Your task to perform on an android device: Set an alarm for 8am Image 0: 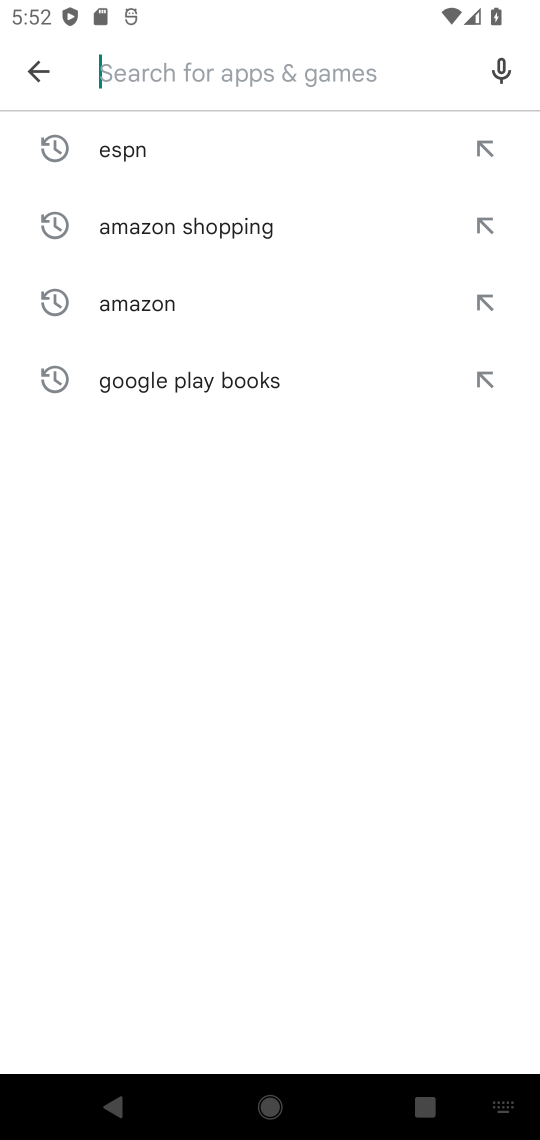
Step 0: press home button
Your task to perform on an android device: Set an alarm for 8am Image 1: 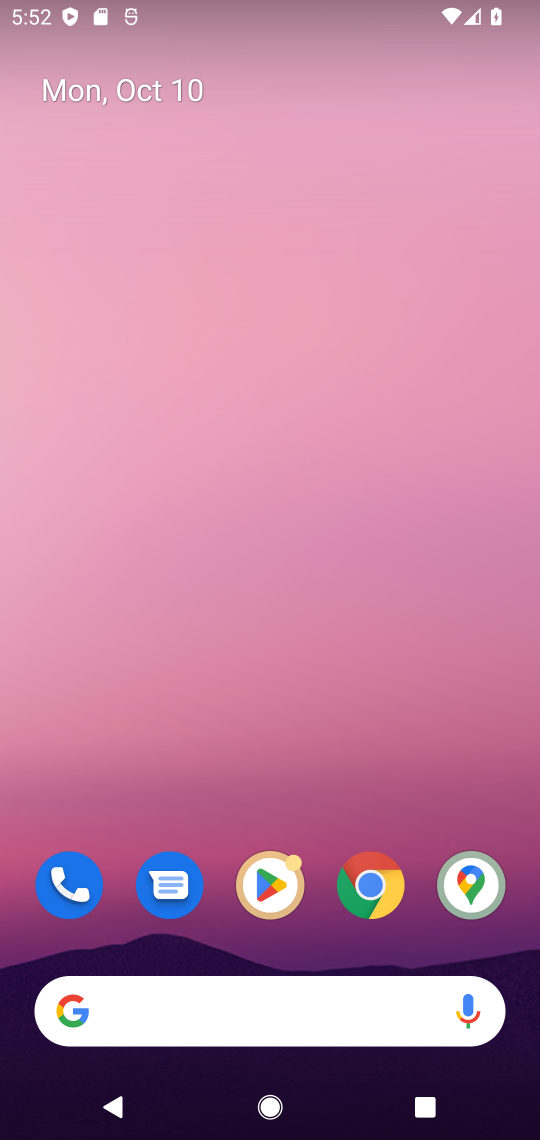
Step 1: drag from (387, 939) to (327, 500)
Your task to perform on an android device: Set an alarm for 8am Image 2: 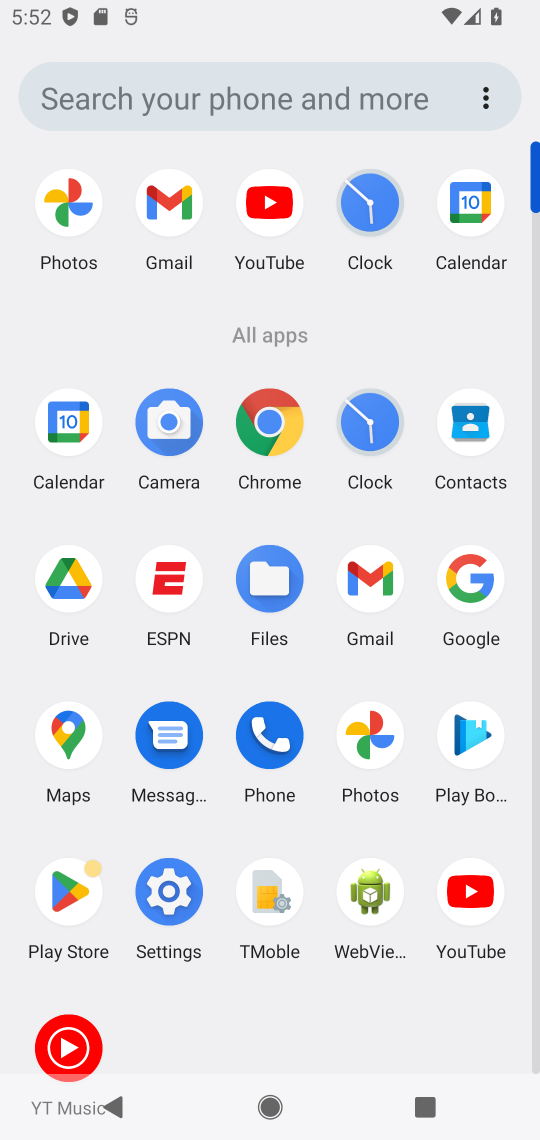
Step 2: click (376, 442)
Your task to perform on an android device: Set an alarm for 8am Image 3: 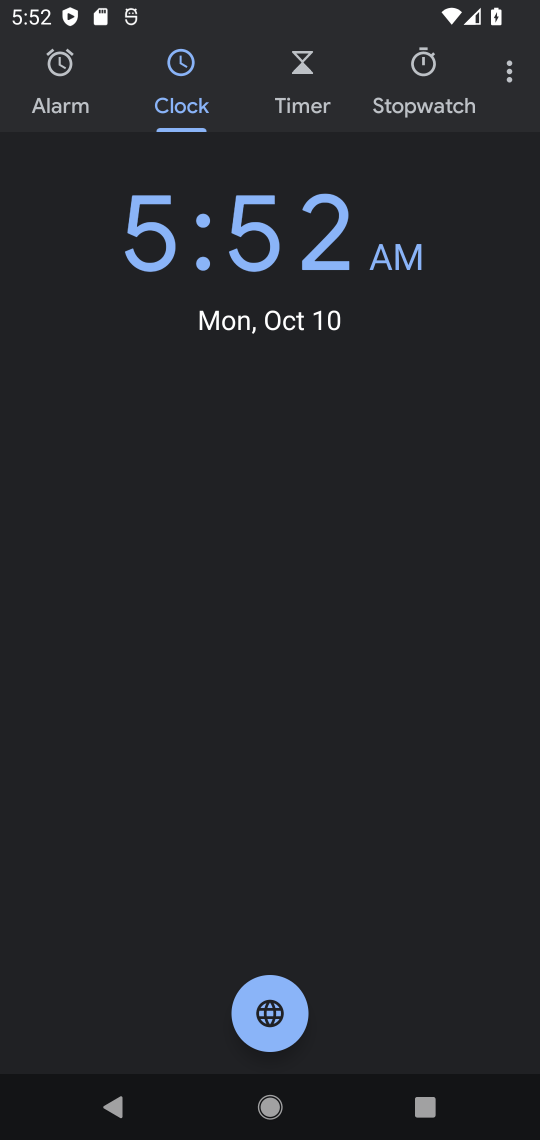
Step 3: click (72, 93)
Your task to perform on an android device: Set an alarm for 8am Image 4: 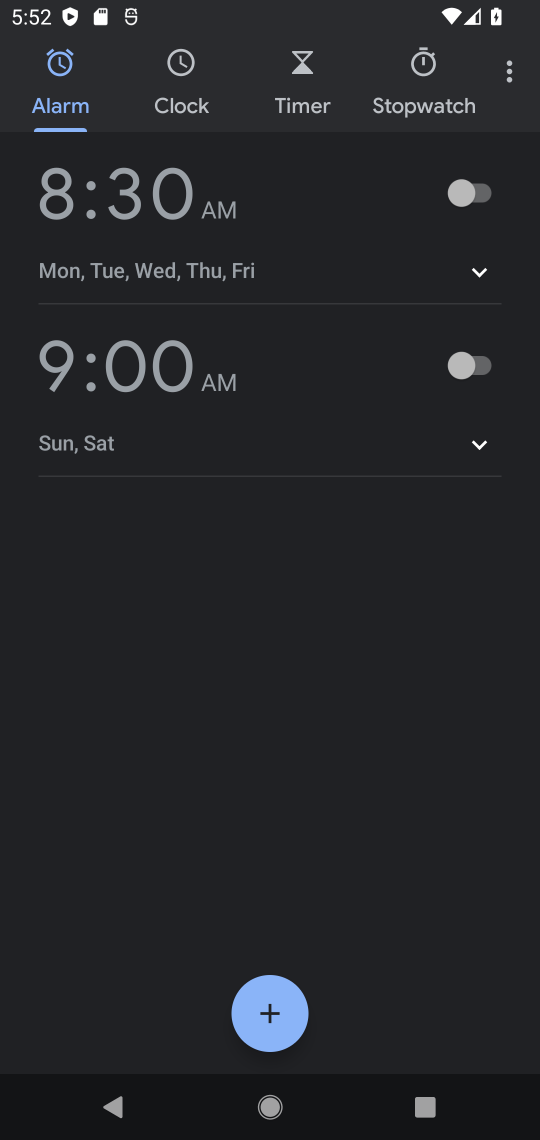
Step 4: click (280, 1009)
Your task to perform on an android device: Set an alarm for 8am Image 5: 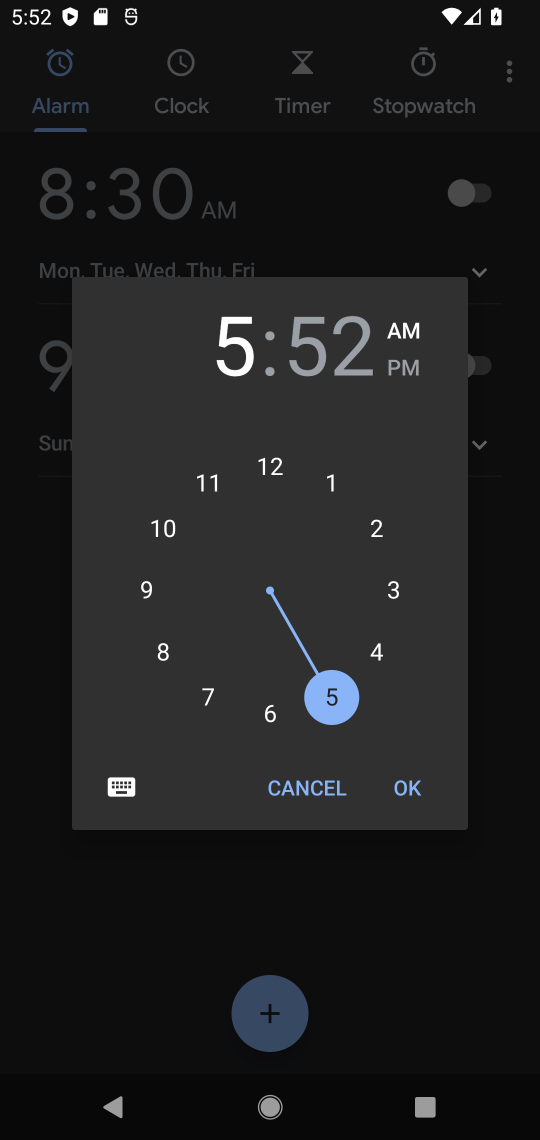
Step 5: click (164, 651)
Your task to perform on an android device: Set an alarm for 8am Image 6: 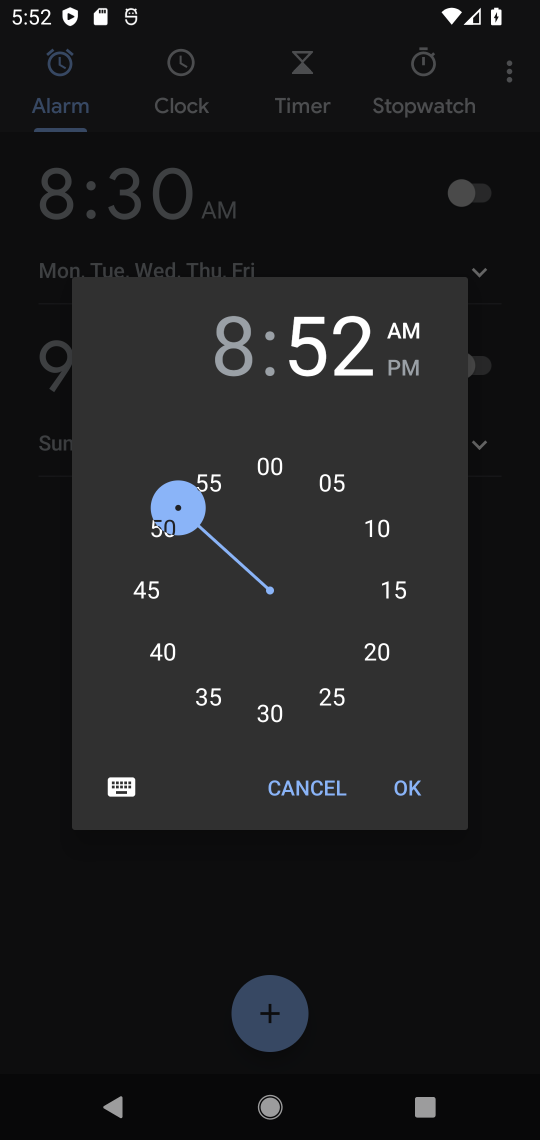
Step 6: click (270, 470)
Your task to perform on an android device: Set an alarm for 8am Image 7: 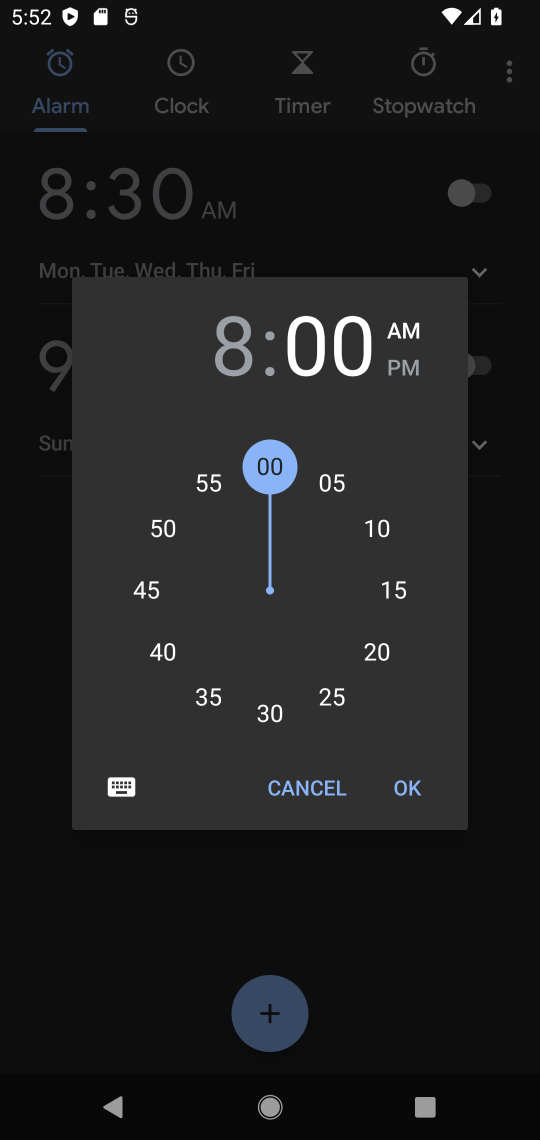
Step 7: click (416, 790)
Your task to perform on an android device: Set an alarm for 8am Image 8: 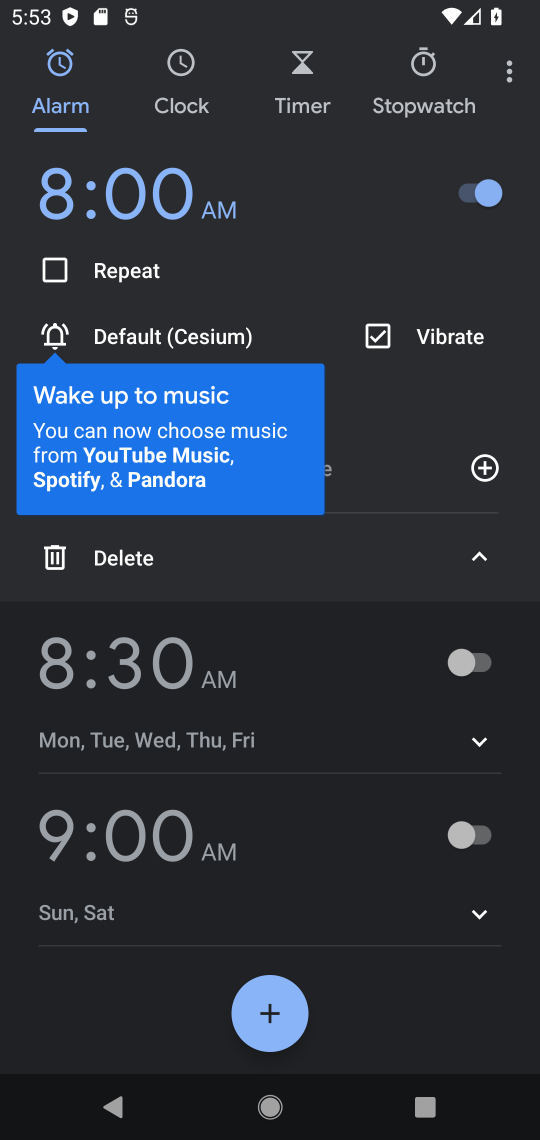
Step 8: task complete